Your task to perform on an android device: turn off data saver in the chrome app Image 0: 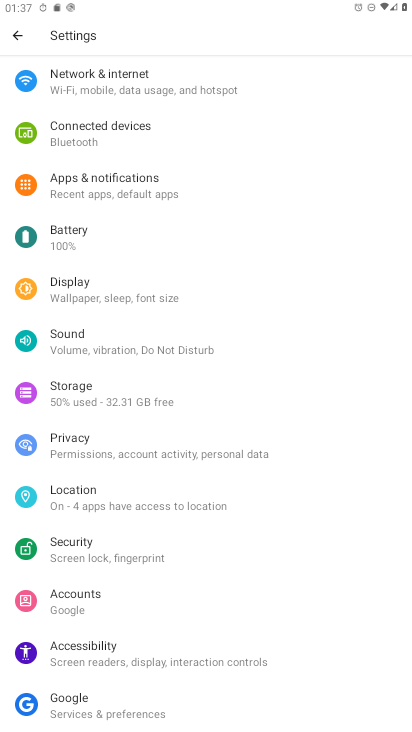
Step 0: press home button
Your task to perform on an android device: turn off data saver in the chrome app Image 1: 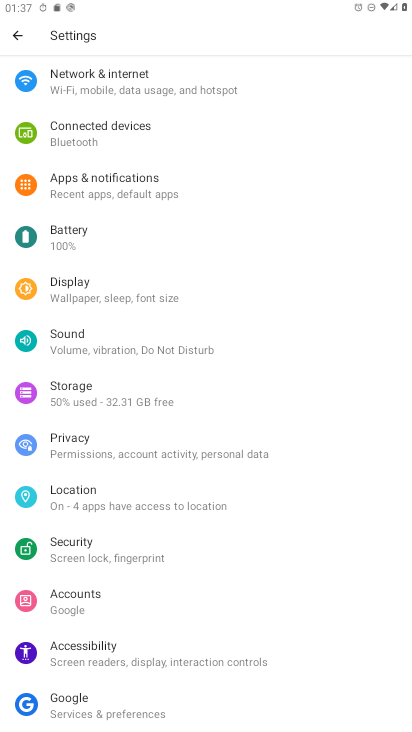
Step 1: drag from (89, 567) to (127, 93)
Your task to perform on an android device: turn off data saver in the chrome app Image 2: 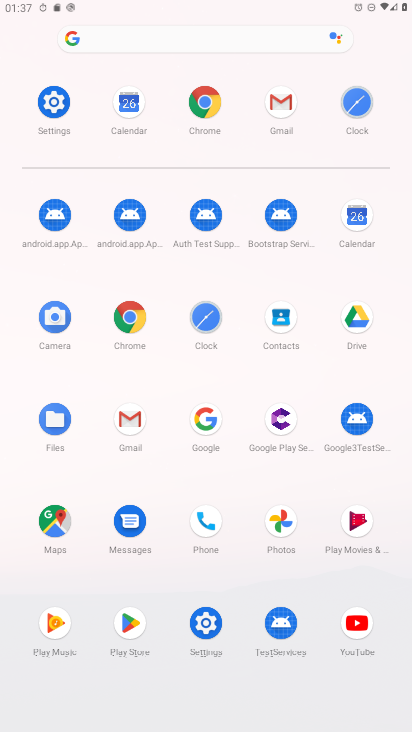
Step 2: click (150, 325)
Your task to perform on an android device: turn off data saver in the chrome app Image 3: 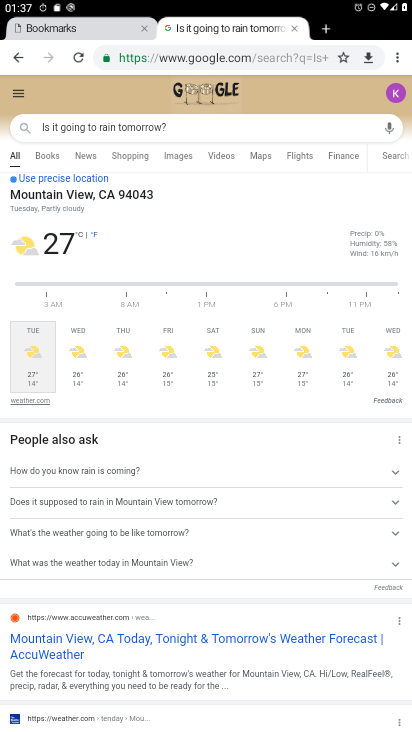
Step 3: drag from (395, 57) to (279, 392)
Your task to perform on an android device: turn off data saver in the chrome app Image 4: 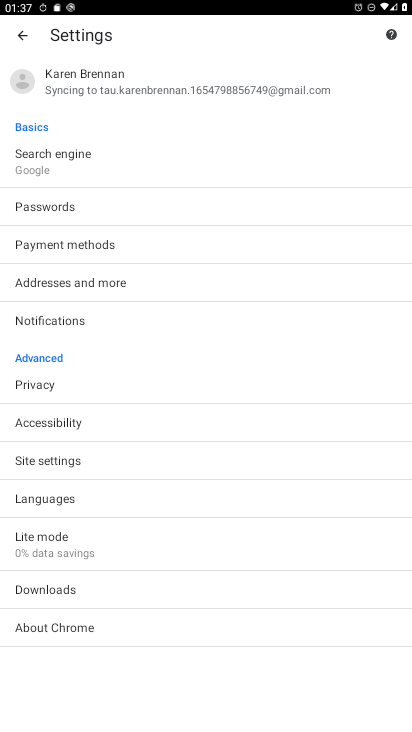
Step 4: click (93, 539)
Your task to perform on an android device: turn off data saver in the chrome app Image 5: 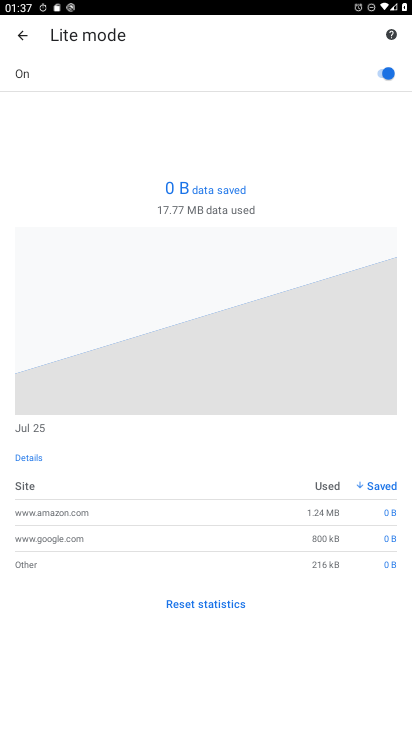
Step 5: click (284, 85)
Your task to perform on an android device: turn off data saver in the chrome app Image 6: 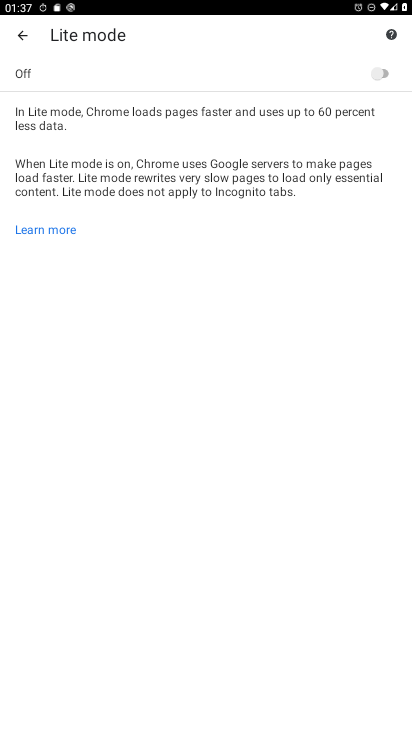
Step 6: task complete